Your task to perform on an android device: manage bookmarks in the chrome app Image 0: 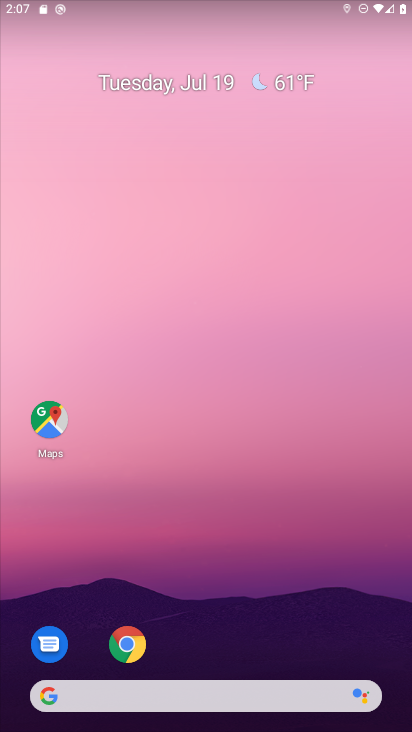
Step 0: drag from (219, 653) to (193, 30)
Your task to perform on an android device: manage bookmarks in the chrome app Image 1: 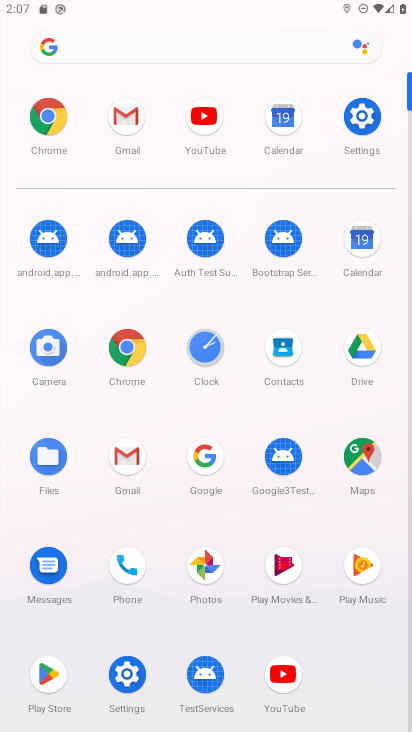
Step 1: click (136, 355)
Your task to perform on an android device: manage bookmarks in the chrome app Image 2: 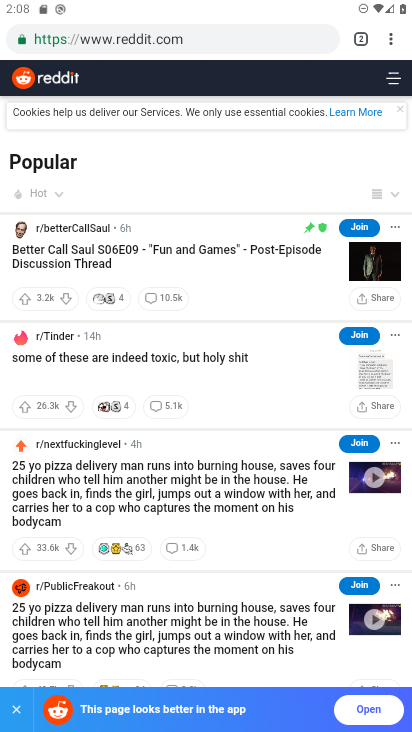
Step 2: click (393, 35)
Your task to perform on an android device: manage bookmarks in the chrome app Image 3: 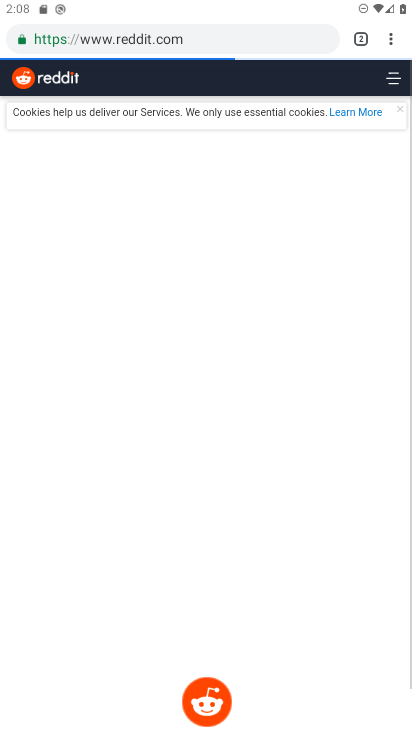
Step 3: drag from (388, 38) to (313, 158)
Your task to perform on an android device: manage bookmarks in the chrome app Image 4: 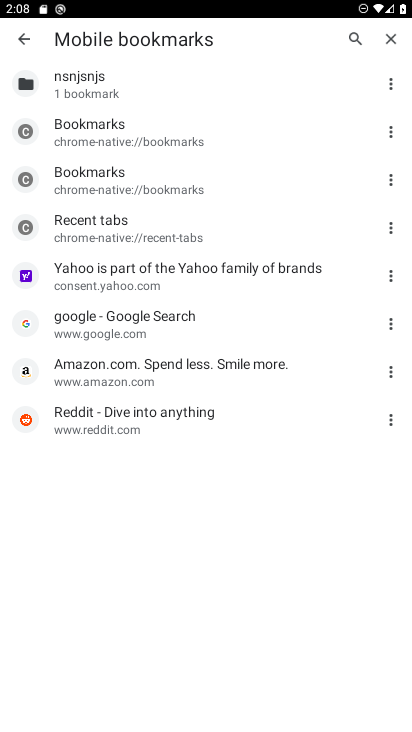
Step 4: click (391, 83)
Your task to perform on an android device: manage bookmarks in the chrome app Image 5: 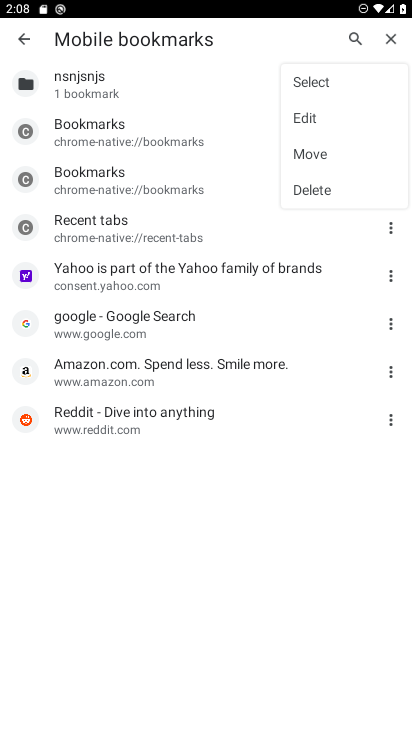
Step 5: click (319, 110)
Your task to perform on an android device: manage bookmarks in the chrome app Image 6: 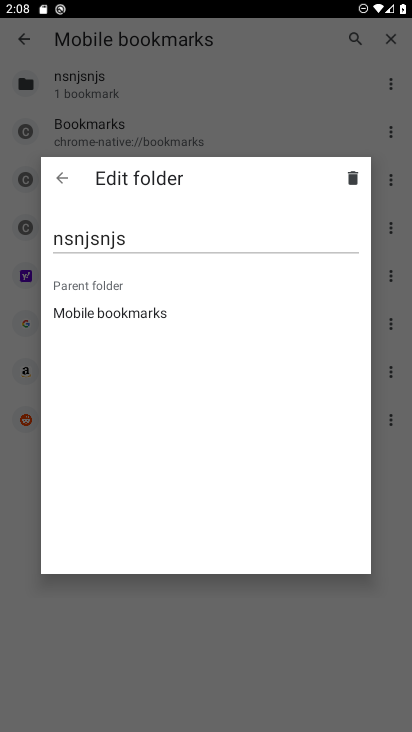
Step 6: click (354, 182)
Your task to perform on an android device: manage bookmarks in the chrome app Image 7: 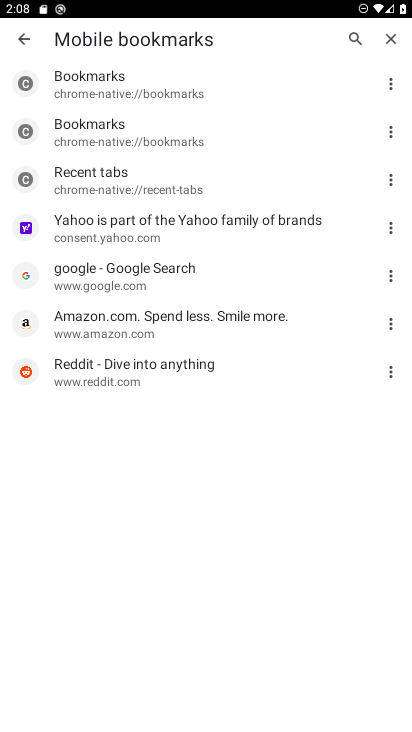
Step 7: task complete